Your task to perform on an android device: turn pop-ups off in chrome Image 0: 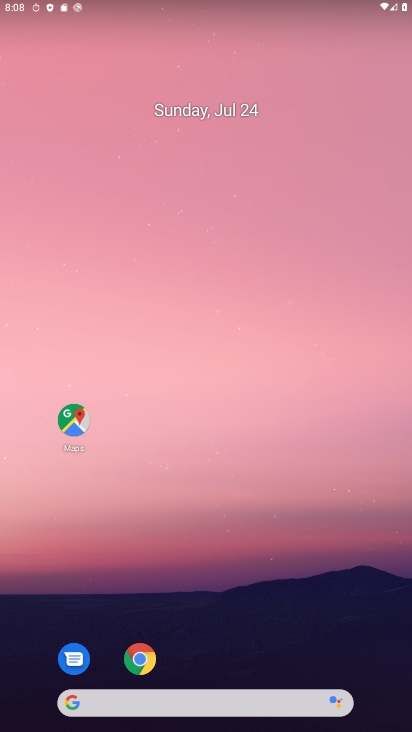
Step 0: drag from (243, 662) to (192, 2)
Your task to perform on an android device: turn pop-ups off in chrome Image 1: 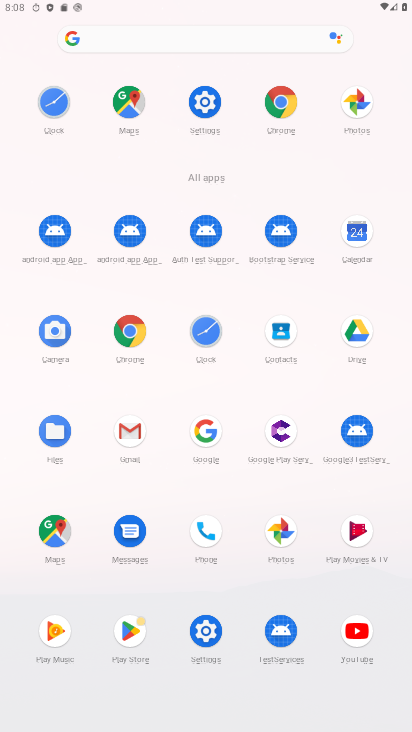
Step 1: click (129, 345)
Your task to perform on an android device: turn pop-ups off in chrome Image 2: 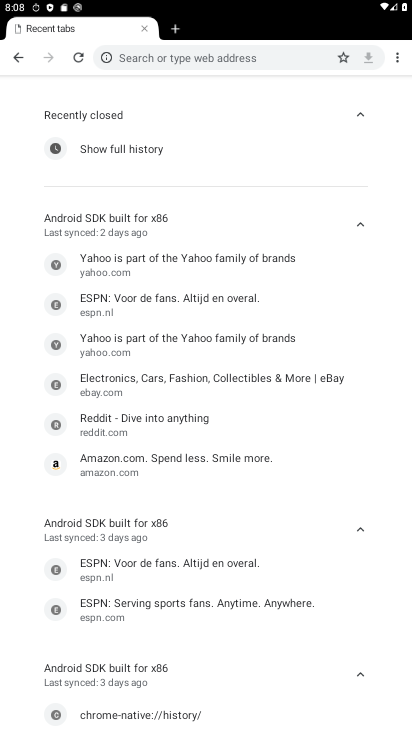
Step 2: click (395, 59)
Your task to perform on an android device: turn pop-ups off in chrome Image 3: 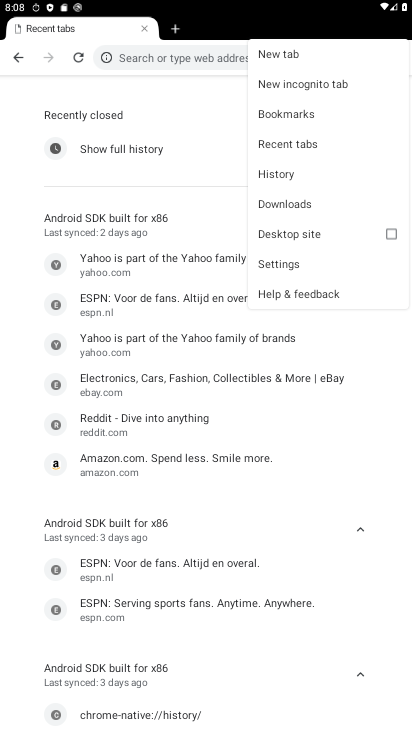
Step 3: click (277, 264)
Your task to perform on an android device: turn pop-ups off in chrome Image 4: 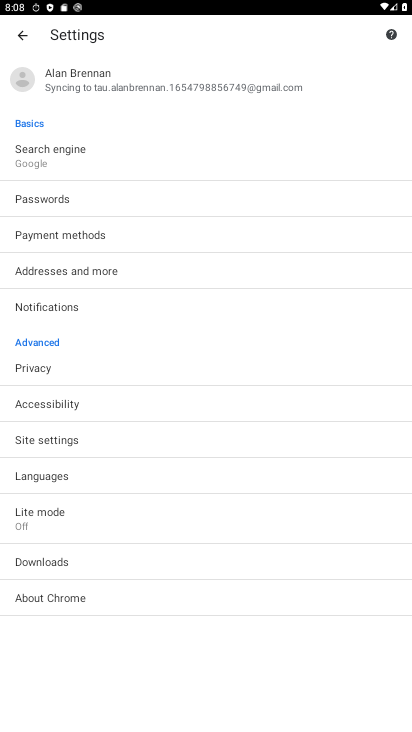
Step 4: click (54, 441)
Your task to perform on an android device: turn pop-ups off in chrome Image 5: 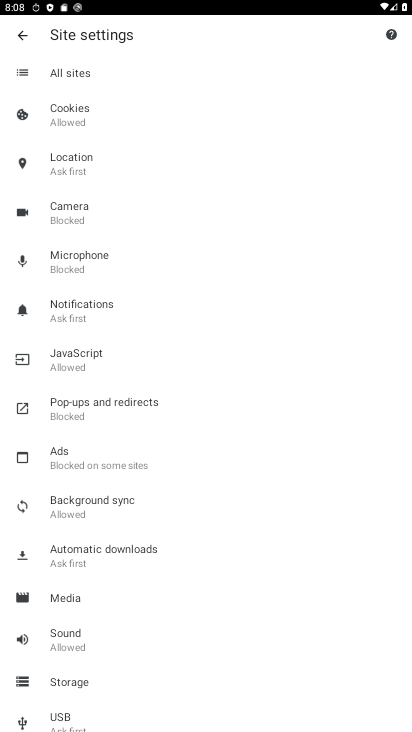
Step 5: click (96, 403)
Your task to perform on an android device: turn pop-ups off in chrome Image 6: 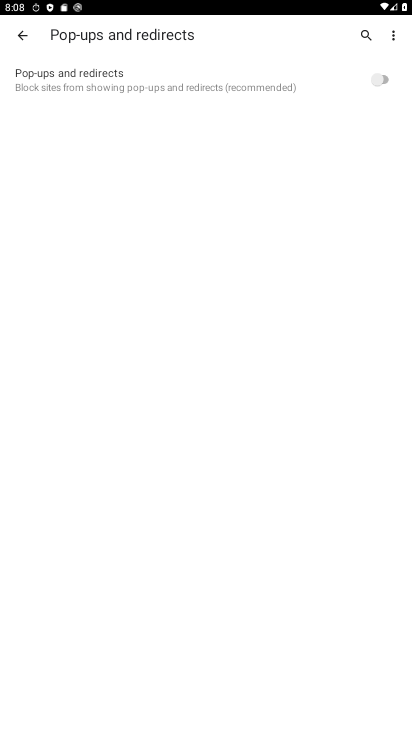
Step 6: task complete